Your task to perform on an android device: Go to Google Image 0: 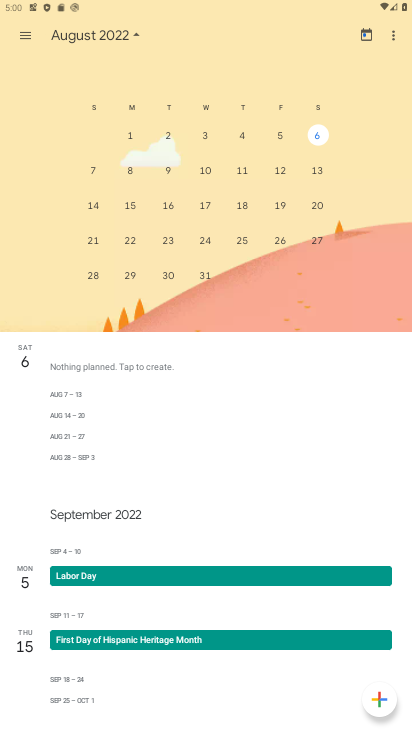
Step 0: press home button
Your task to perform on an android device: Go to Google Image 1: 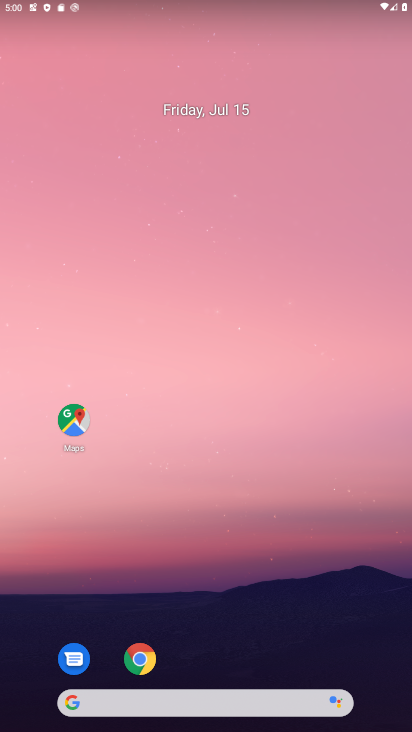
Step 1: drag from (294, 484) to (144, 26)
Your task to perform on an android device: Go to Google Image 2: 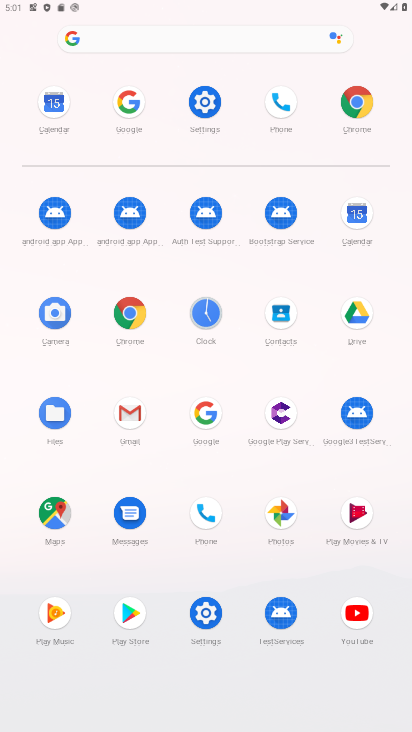
Step 2: click (222, 412)
Your task to perform on an android device: Go to Google Image 3: 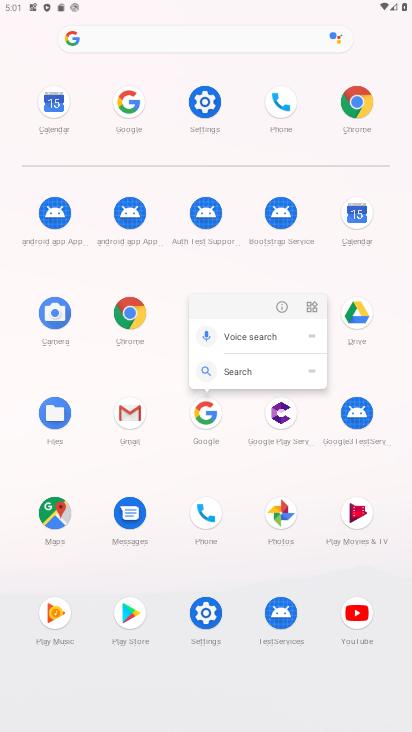
Step 3: click (222, 419)
Your task to perform on an android device: Go to Google Image 4: 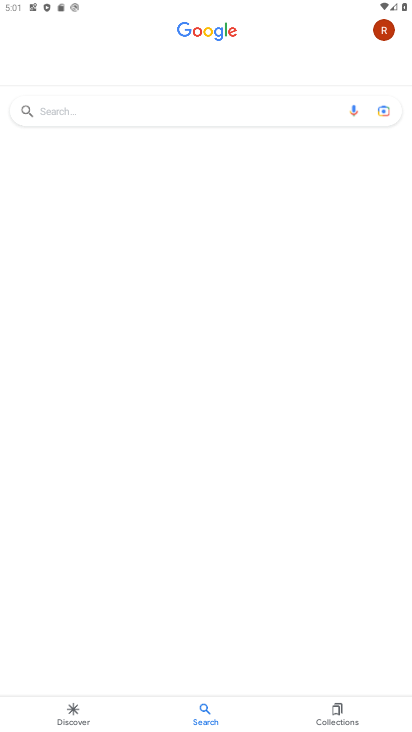
Step 4: task complete